Your task to perform on an android device: set default search engine in the chrome app Image 0: 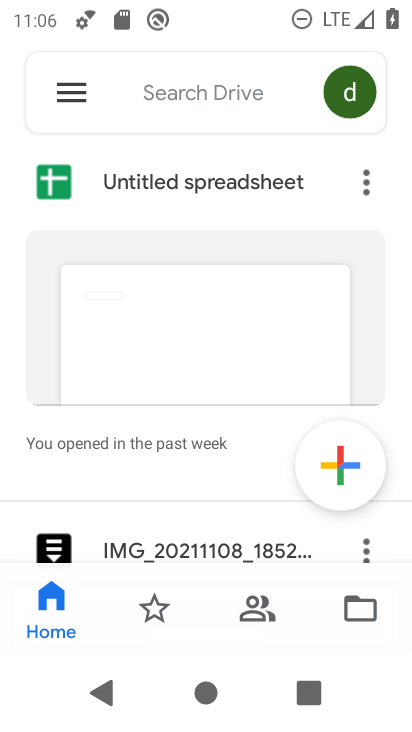
Step 0: press back button
Your task to perform on an android device: set default search engine in the chrome app Image 1: 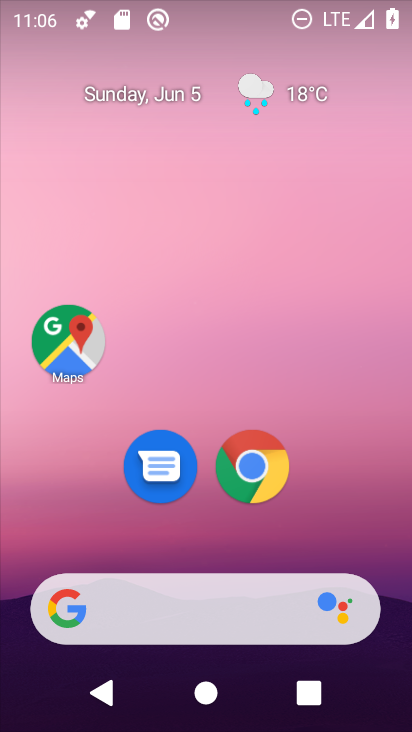
Step 1: drag from (373, 517) to (244, 29)
Your task to perform on an android device: set default search engine in the chrome app Image 2: 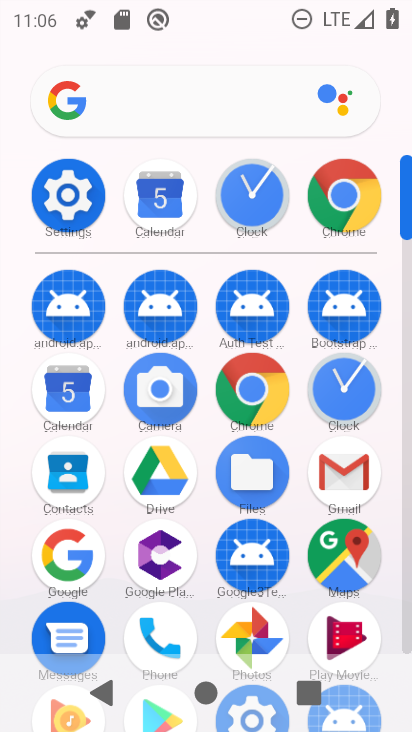
Step 2: drag from (3, 573) to (11, 256)
Your task to perform on an android device: set default search engine in the chrome app Image 3: 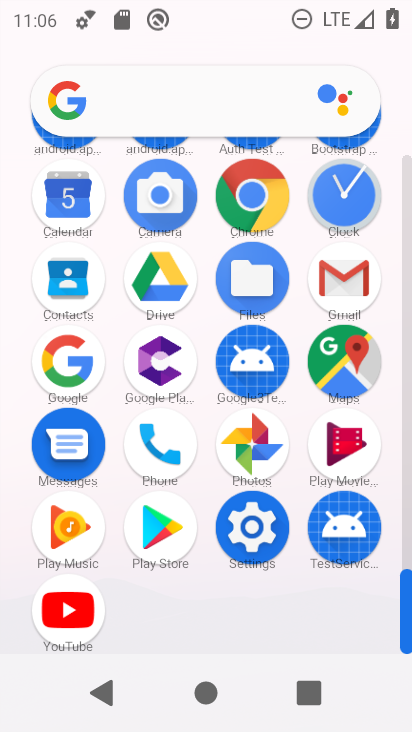
Step 3: click (249, 187)
Your task to perform on an android device: set default search engine in the chrome app Image 4: 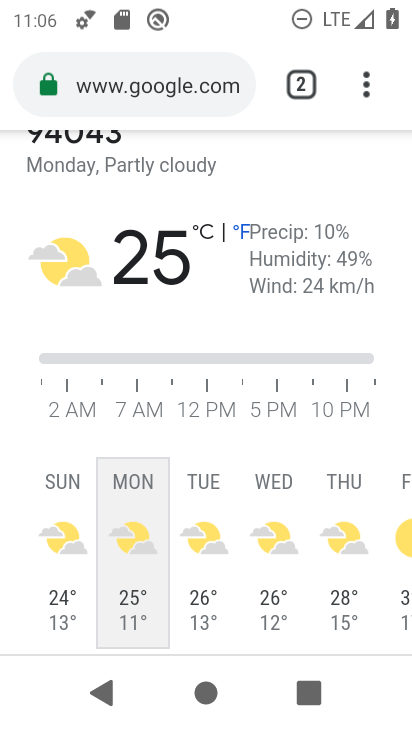
Step 4: task complete